Your task to perform on an android device: Find coffee shops on Maps Image 0: 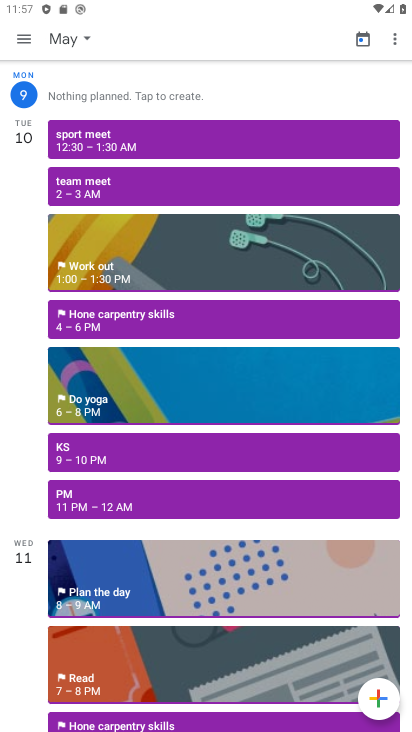
Step 0: press back button
Your task to perform on an android device: Find coffee shops on Maps Image 1: 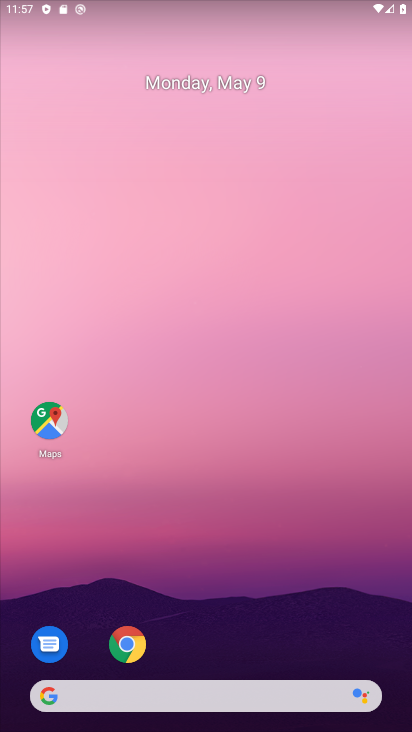
Step 1: click (47, 419)
Your task to perform on an android device: Find coffee shops on Maps Image 2: 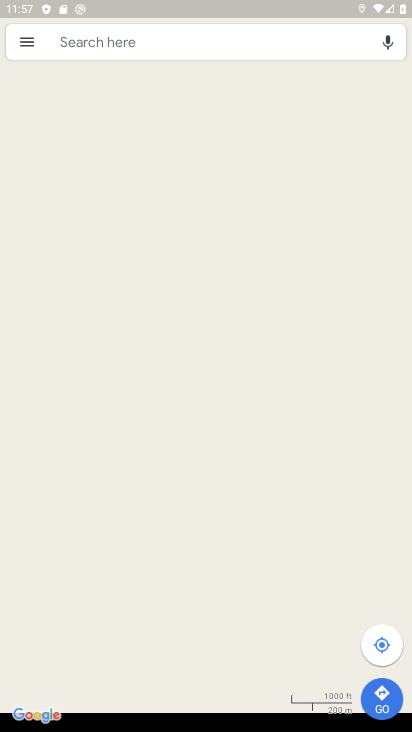
Step 2: click (141, 44)
Your task to perform on an android device: Find coffee shops on Maps Image 3: 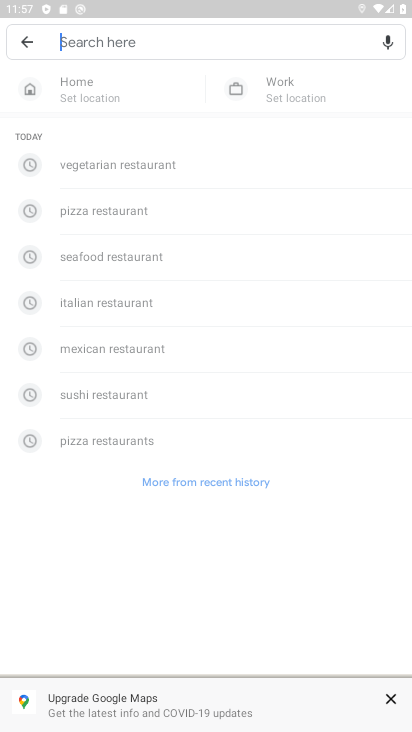
Step 3: click (94, 43)
Your task to perform on an android device: Find coffee shops on Maps Image 4: 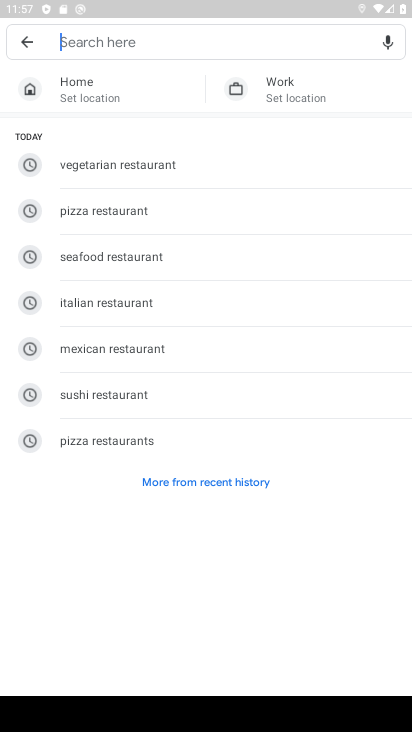
Step 4: type "coffee shops"
Your task to perform on an android device: Find coffee shops on Maps Image 5: 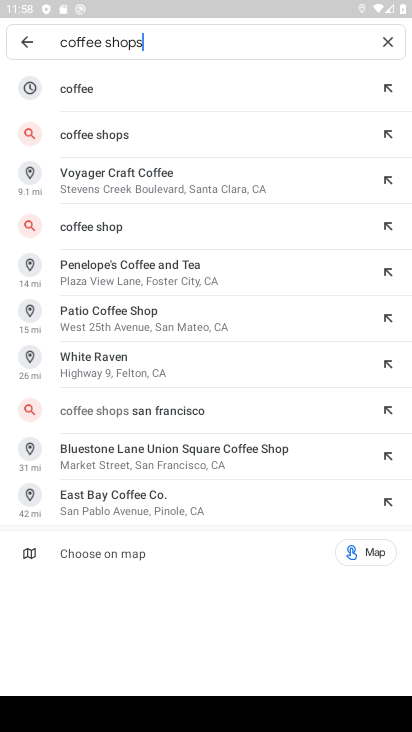
Step 5: click (162, 137)
Your task to perform on an android device: Find coffee shops on Maps Image 6: 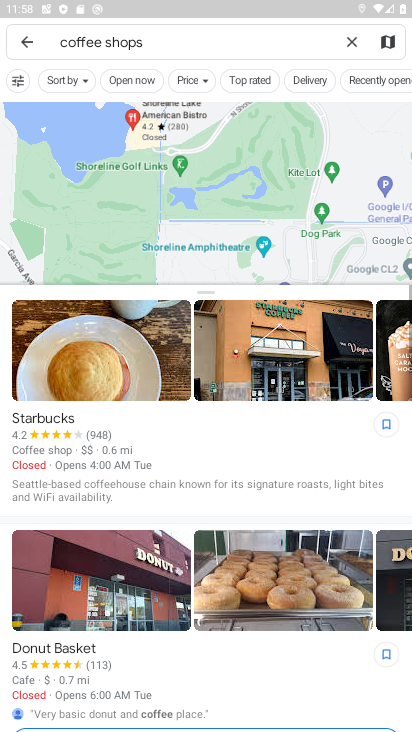
Step 6: task complete